Your task to perform on an android device: Search for jbl charge 4 on walmart.com, select the first entry, add it to the cart, then select checkout. Image 0: 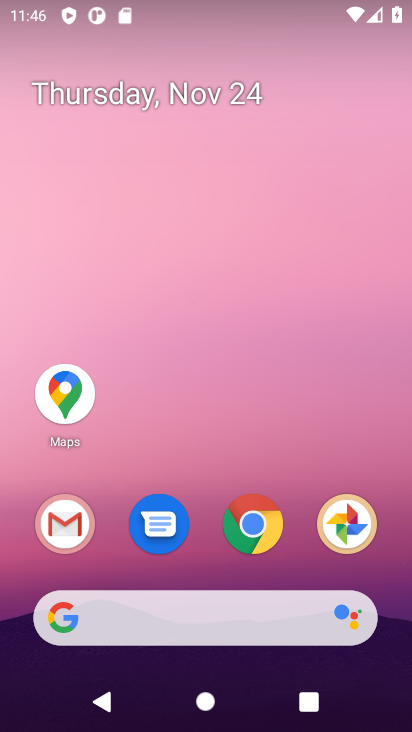
Step 0: click (244, 527)
Your task to perform on an android device: Search for jbl charge 4 on walmart.com, select the first entry, add it to the cart, then select checkout. Image 1: 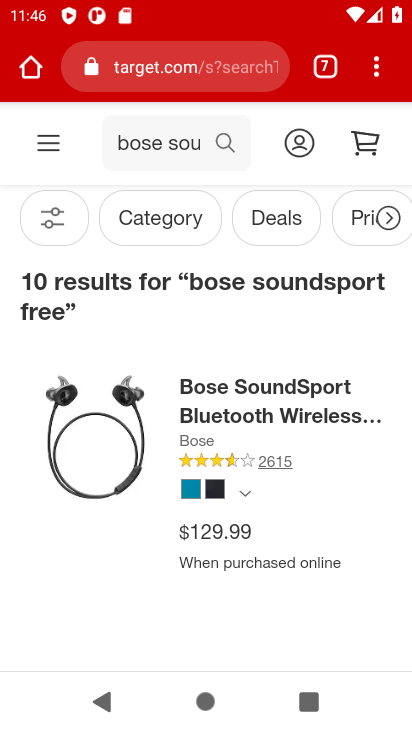
Step 1: click (167, 63)
Your task to perform on an android device: Search for jbl charge 4 on walmart.com, select the first entry, add it to the cart, then select checkout. Image 2: 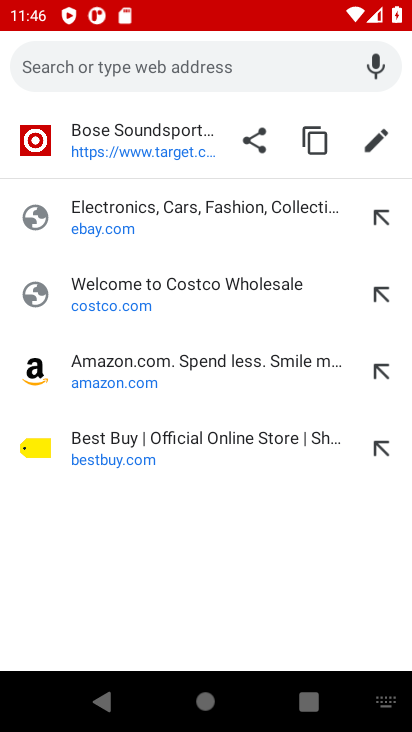
Step 2: type "walmart.com"
Your task to perform on an android device: Search for jbl charge 4 on walmart.com, select the first entry, add it to the cart, then select checkout. Image 3: 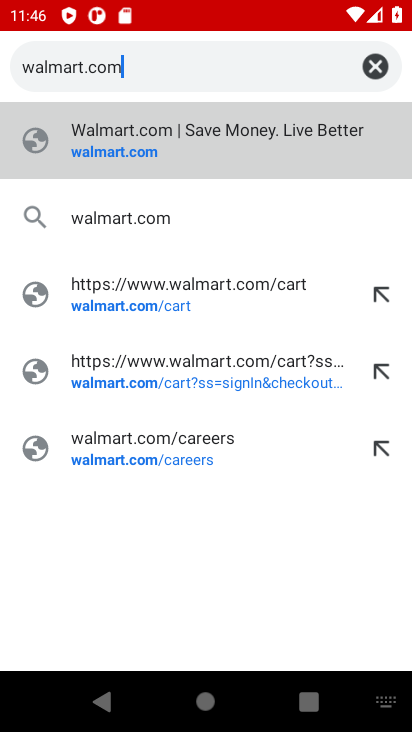
Step 3: click (112, 149)
Your task to perform on an android device: Search for jbl charge 4 on walmart.com, select the first entry, add it to the cart, then select checkout. Image 4: 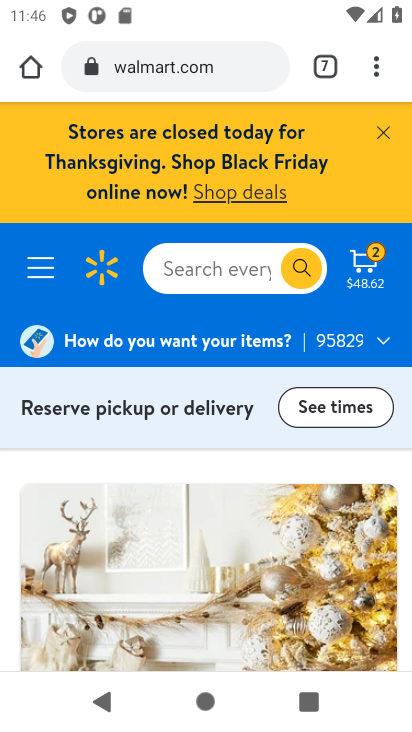
Step 4: click (209, 262)
Your task to perform on an android device: Search for jbl charge 4 on walmart.com, select the first entry, add it to the cart, then select checkout. Image 5: 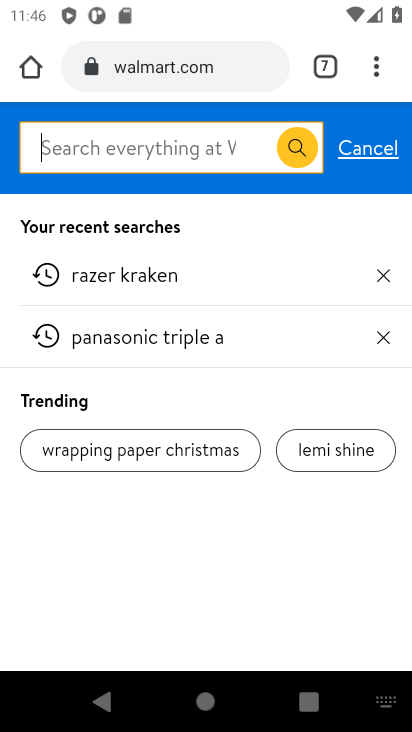
Step 5: type " jbl charge 4 "
Your task to perform on an android device: Search for jbl charge 4 on walmart.com, select the first entry, add it to the cart, then select checkout. Image 6: 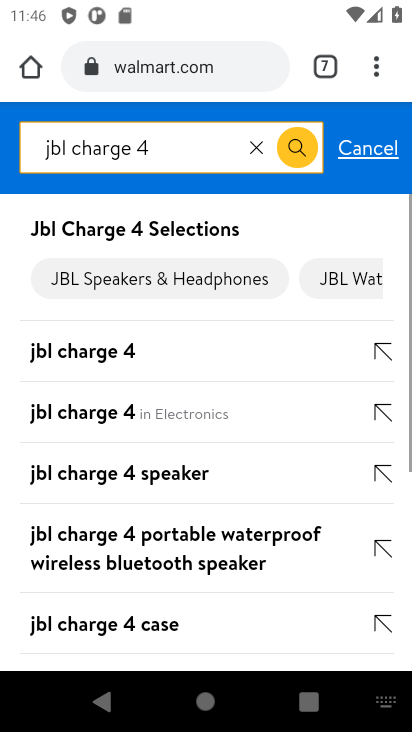
Step 6: click (75, 356)
Your task to perform on an android device: Search for jbl charge 4 on walmart.com, select the first entry, add it to the cart, then select checkout. Image 7: 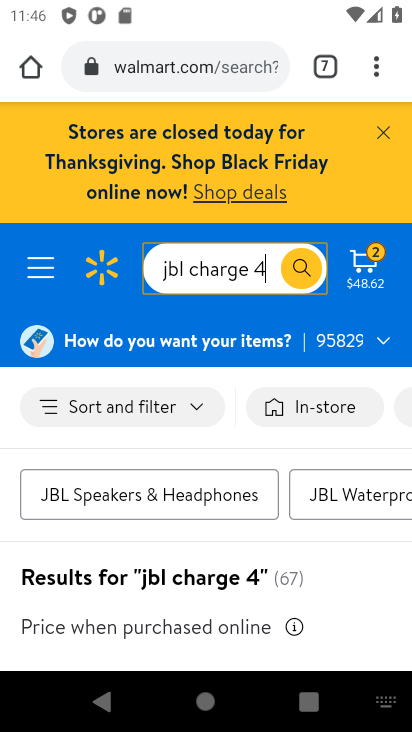
Step 7: drag from (173, 470) to (152, 142)
Your task to perform on an android device: Search for jbl charge 4 on walmart.com, select the first entry, add it to the cart, then select checkout. Image 8: 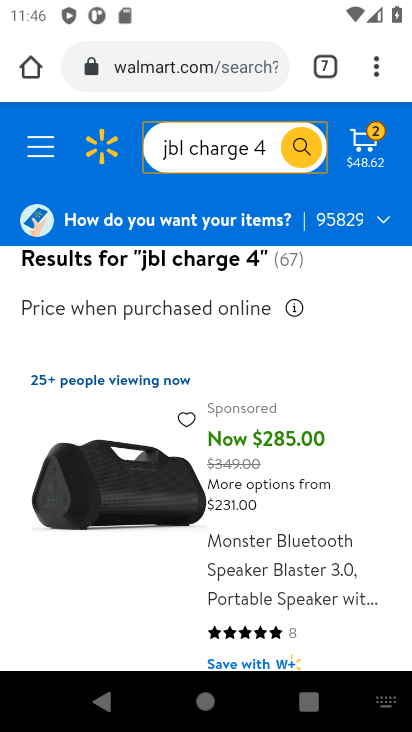
Step 8: drag from (101, 481) to (103, 265)
Your task to perform on an android device: Search for jbl charge 4 on walmart.com, select the first entry, add it to the cart, then select checkout. Image 9: 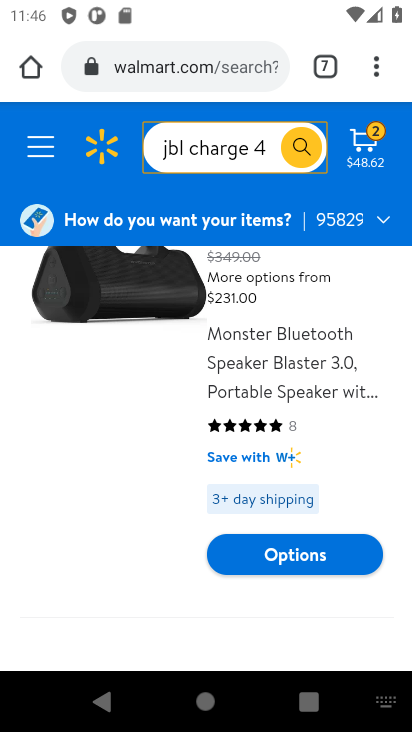
Step 9: drag from (104, 323) to (118, 522)
Your task to perform on an android device: Search for jbl charge 4 on walmart.com, select the first entry, add it to the cart, then select checkout. Image 10: 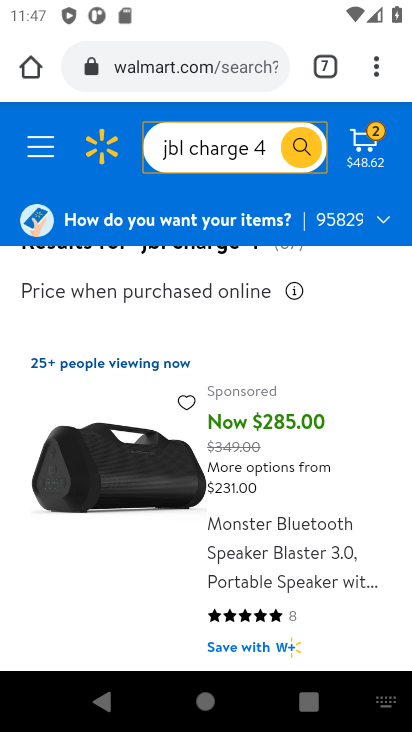
Step 10: drag from (118, 522) to (93, 333)
Your task to perform on an android device: Search for jbl charge 4 on walmart.com, select the first entry, add it to the cart, then select checkout. Image 11: 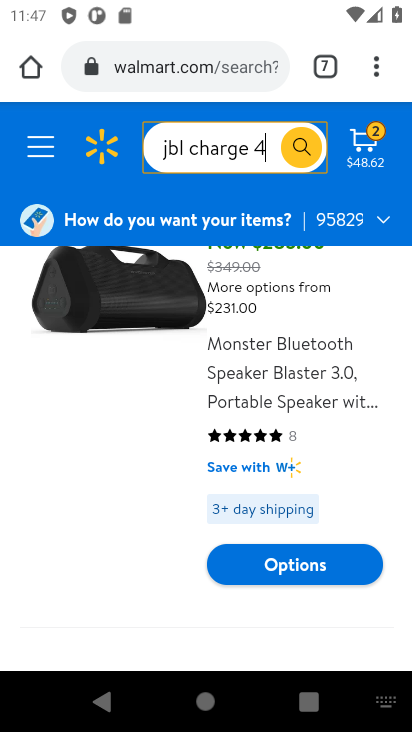
Step 11: drag from (111, 386) to (114, 587)
Your task to perform on an android device: Search for jbl charge 4 on walmart.com, select the first entry, add it to the cart, then select checkout. Image 12: 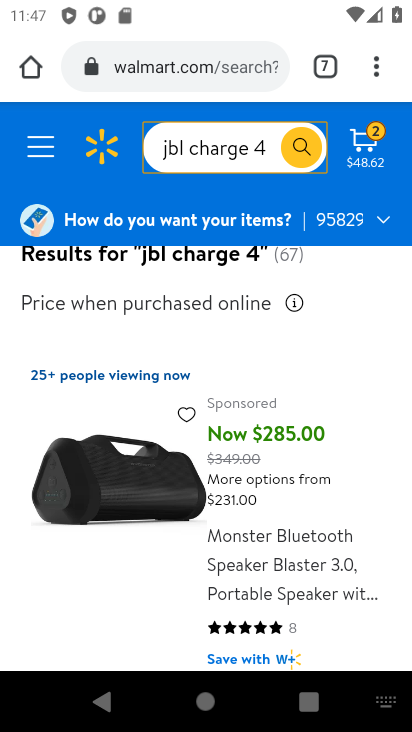
Step 12: drag from (117, 469) to (104, 229)
Your task to perform on an android device: Search for jbl charge 4 on walmart.com, select the first entry, add it to the cart, then select checkout. Image 13: 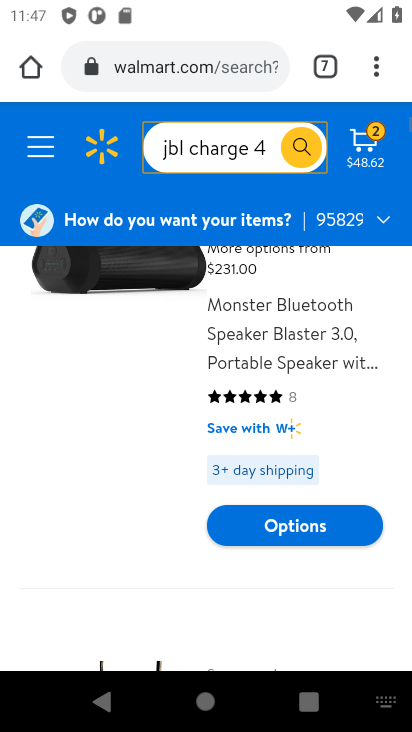
Step 13: click (88, 320)
Your task to perform on an android device: Search for jbl charge 4 on walmart.com, select the first entry, add it to the cart, then select checkout. Image 14: 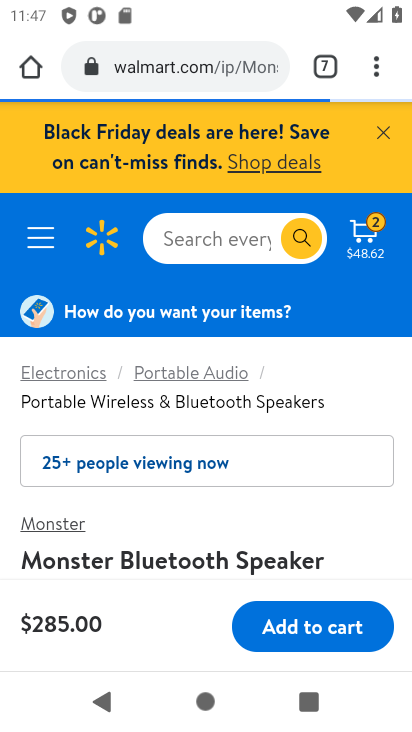
Step 14: task complete